Your task to perform on an android device: clear history in the chrome app Image 0: 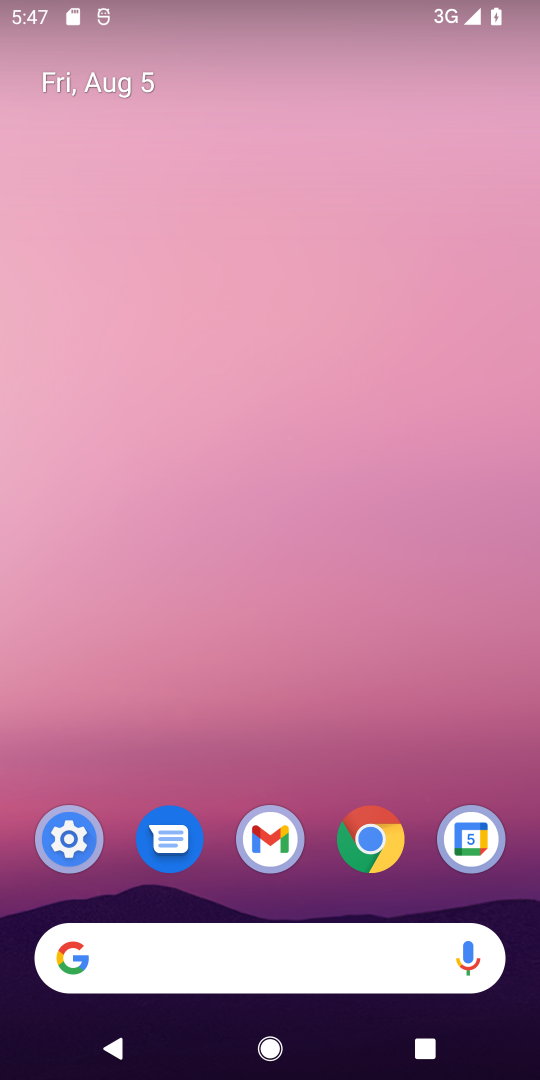
Step 0: press home button
Your task to perform on an android device: clear history in the chrome app Image 1: 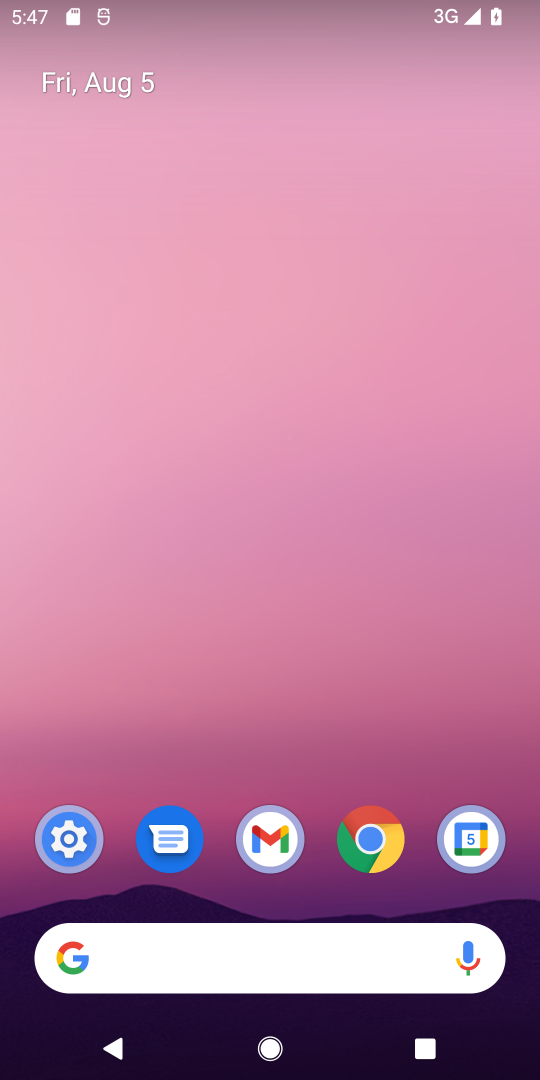
Step 1: click (362, 836)
Your task to perform on an android device: clear history in the chrome app Image 2: 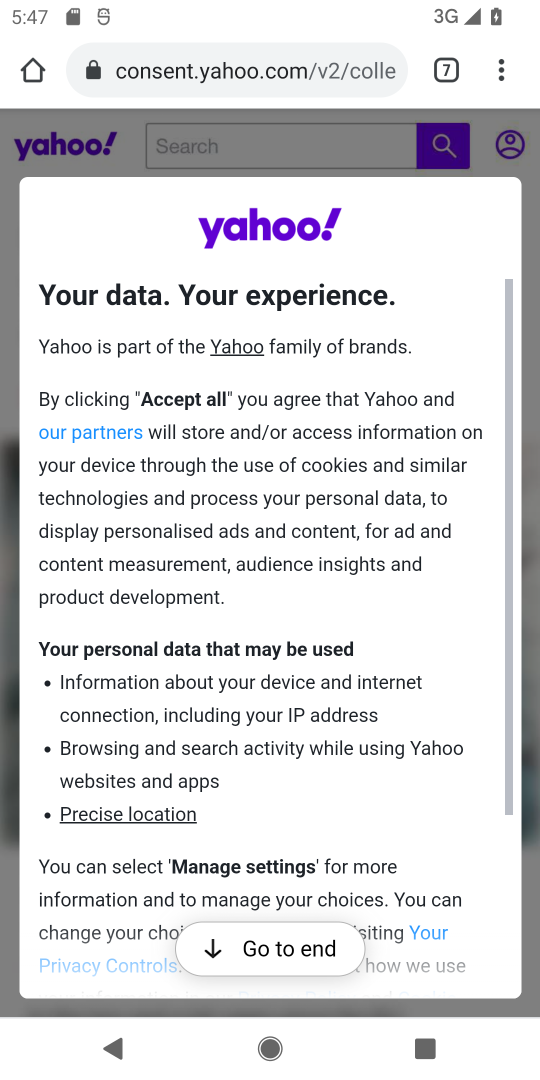
Step 2: drag from (494, 74) to (290, 300)
Your task to perform on an android device: clear history in the chrome app Image 3: 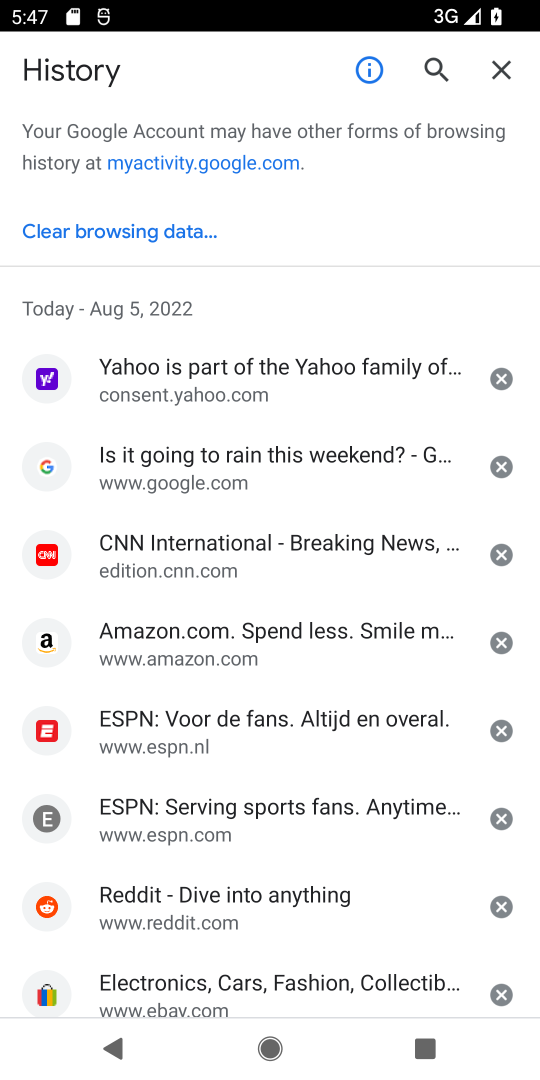
Step 3: click (172, 246)
Your task to perform on an android device: clear history in the chrome app Image 4: 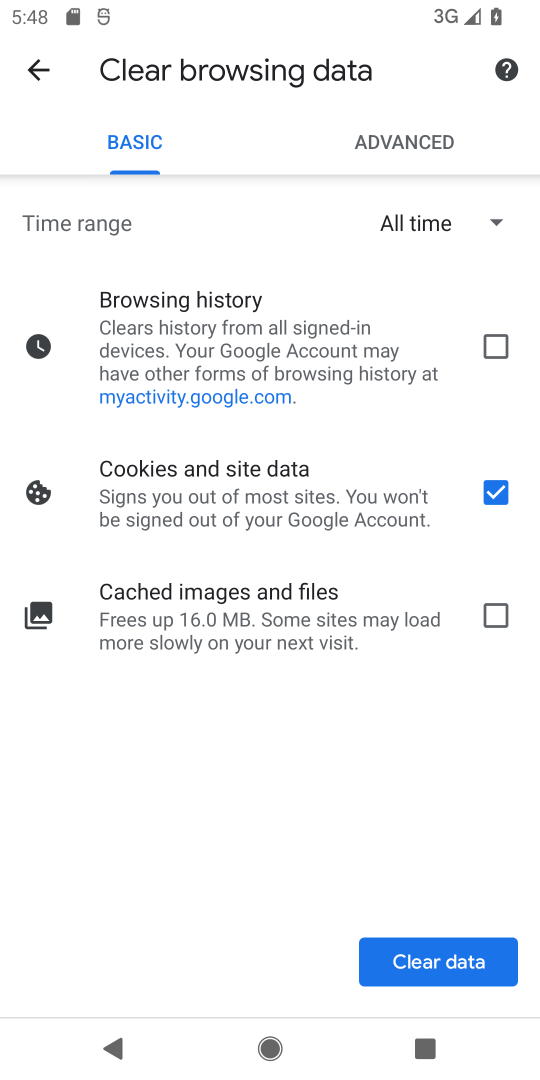
Step 4: click (485, 616)
Your task to perform on an android device: clear history in the chrome app Image 5: 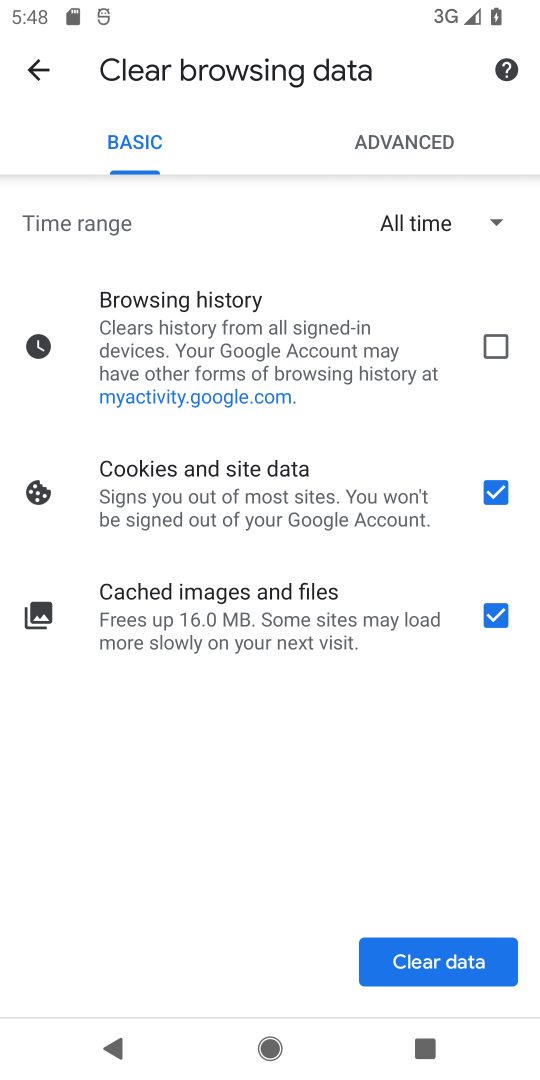
Step 5: click (495, 333)
Your task to perform on an android device: clear history in the chrome app Image 6: 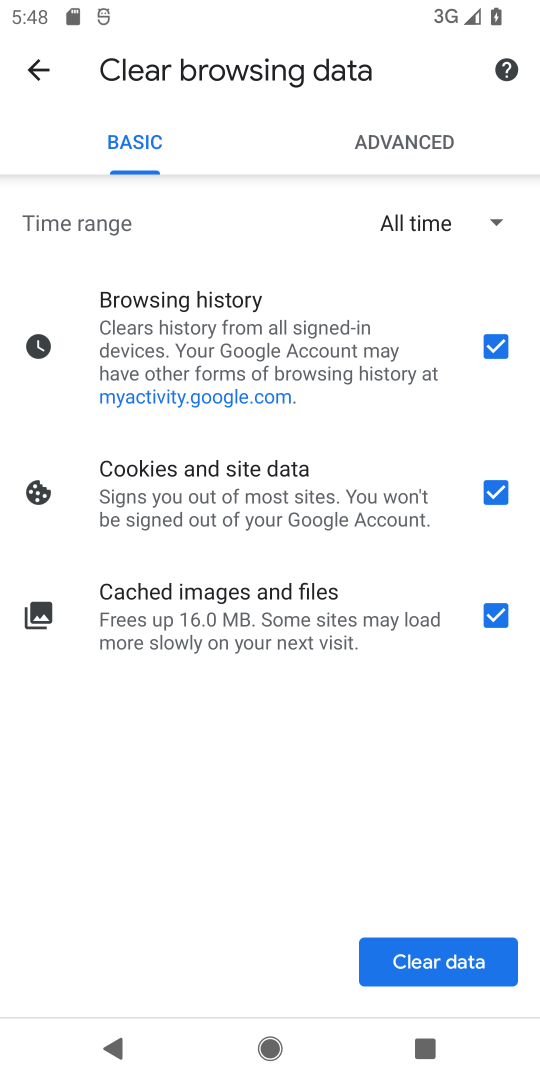
Step 6: click (414, 969)
Your task to perform on an android device: clear history in the chrome app Image 7: 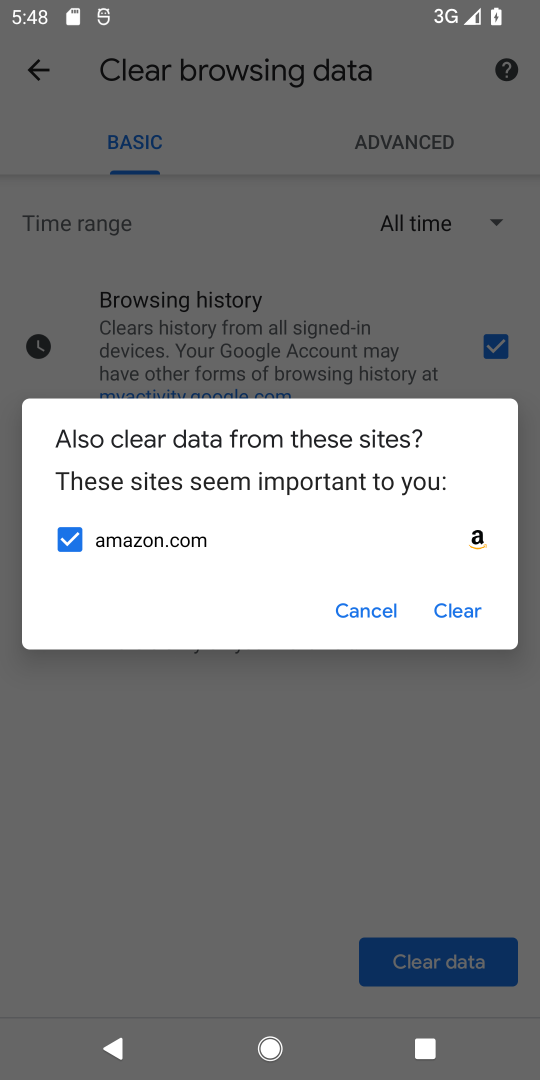
Step 7: click (474, 612)
Your task to perform on an android device: clear history in the chrome app Image 8: 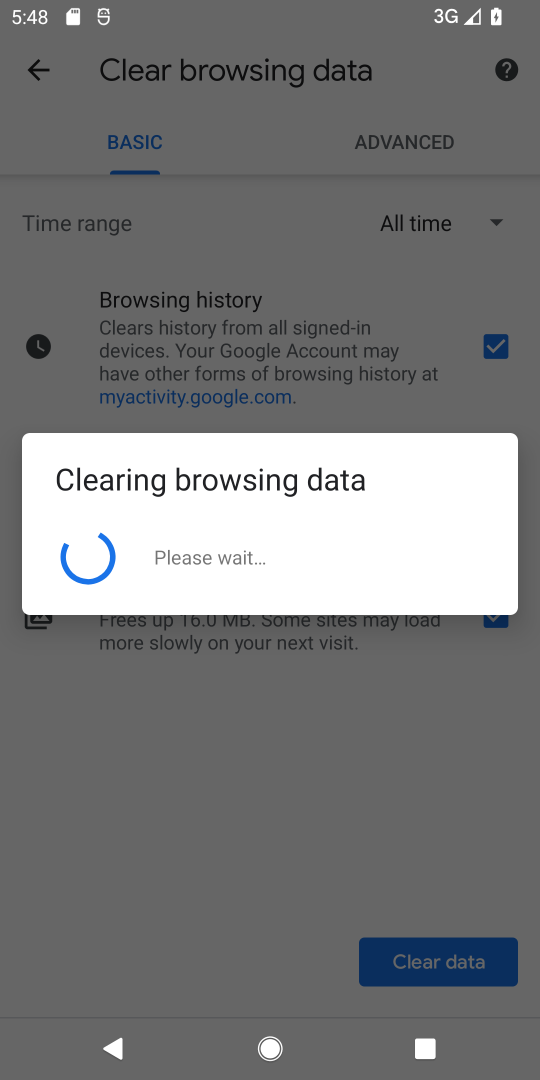
Step 8: task complete